Your task to perform on an android device: Open settings on Google Maps Image 0: 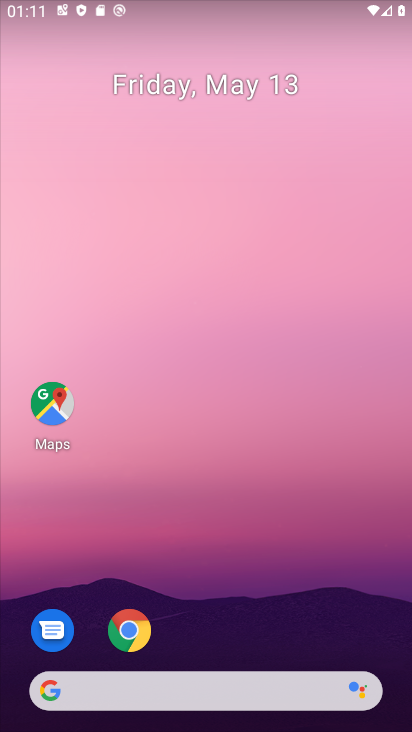
Step 0: drag from (333, 720) to (399, 91)
Your task to perform on an android device: Open settings on Google Maps Image 1: 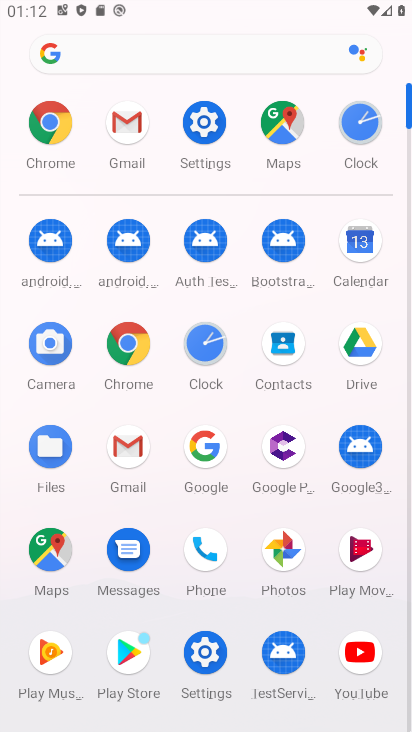
Step 1: click (285, 125)
Your task to perform on an android device: Open settings on Google Maps Image 2: 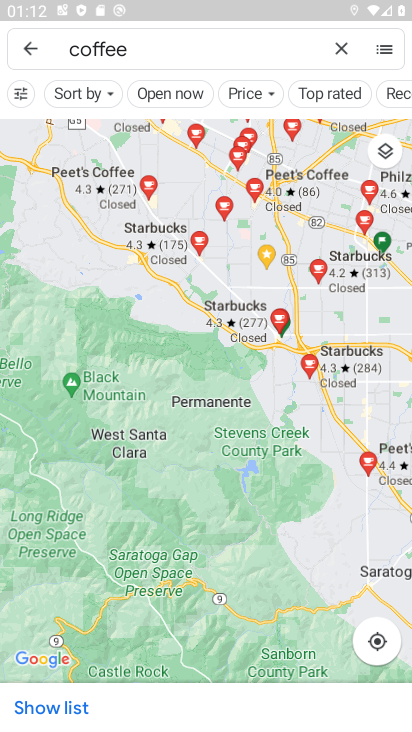
Step 2: click (27, 51)
Your task to perform on an android device: Open settings on Google Maps Image 3: 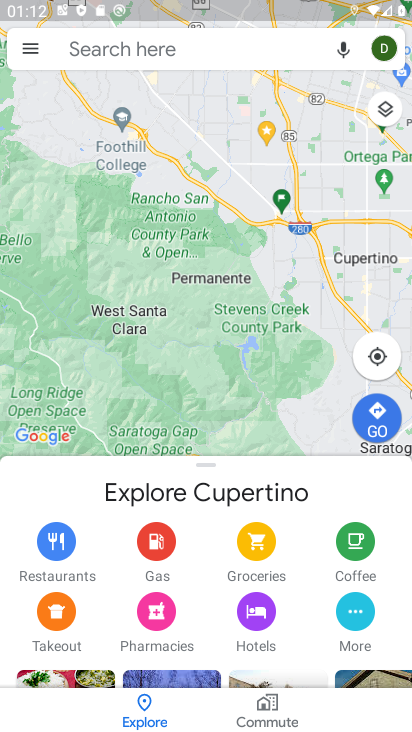
Step 3: click (27, 52)
Your task to perform on an android device: Open settings on Google Maps Image 4: 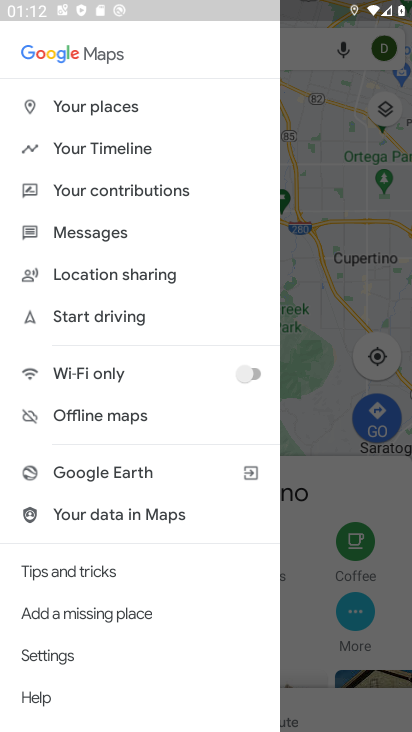
Step 4: click (95, 662)
Your task to perform on an android device: Open settings on Google Maps Image 5: 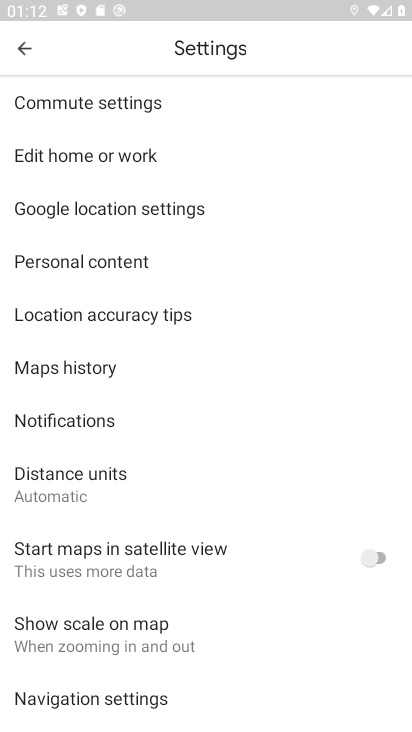
Step 5: task complete